Your task to perform on an android device: check battery use Image 0: 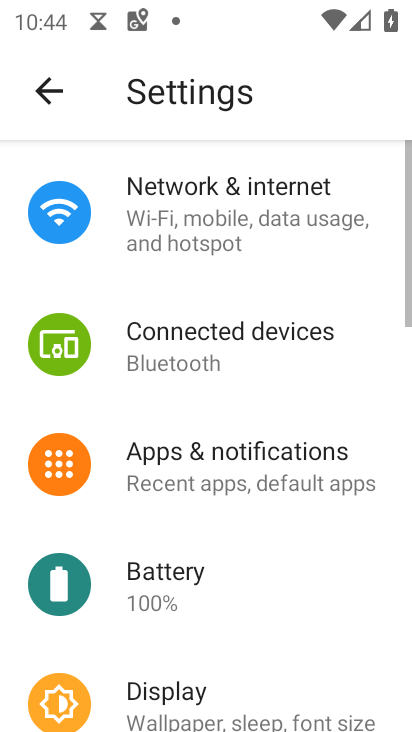
Step 0: press home button
Your task to perform on an android device: check battery use Image 1: 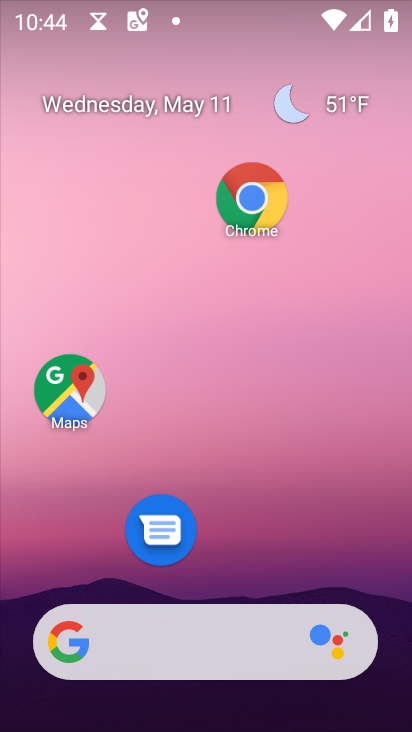
Step 1: drag from (273, 519) to (276, 212)
Your task to perform on an android device: check battery use Image 2: 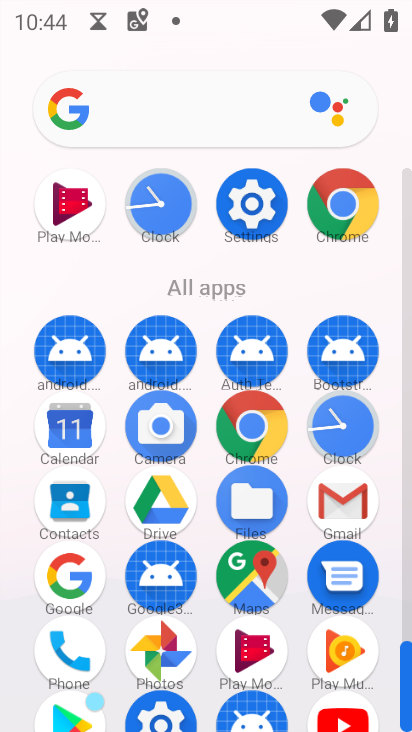
Step 2: click (248, 219)
Your task to perform on an android device: check battery use Image 3: 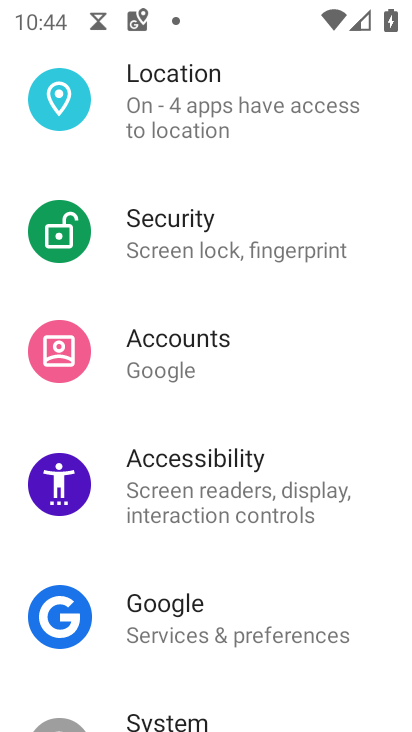
Step 3: drag from (274, 336) to (271, 602)
Your task to perform on an android device: check battery use Image 4: 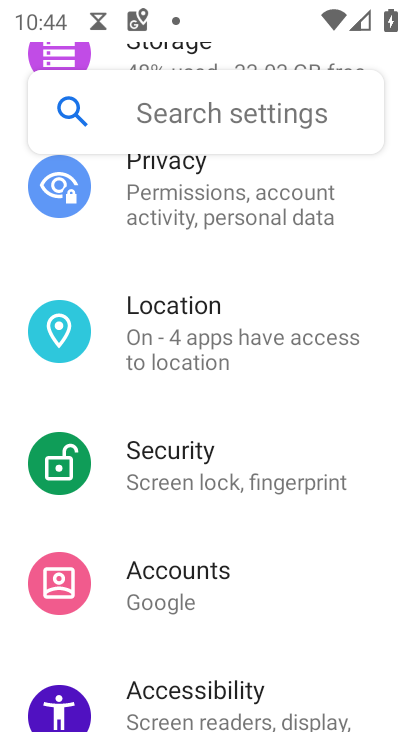
Step 4: drag from (317, 317) to (261, 688)
Your task to perform on an android device: check battery use Image 5: 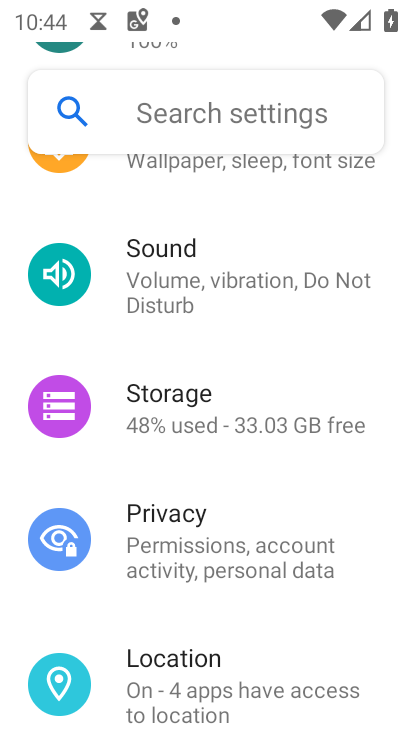
Step 5: drag from (237, 417) to (203, 729)
Your task to perform on an android device: check battery use Image 6: 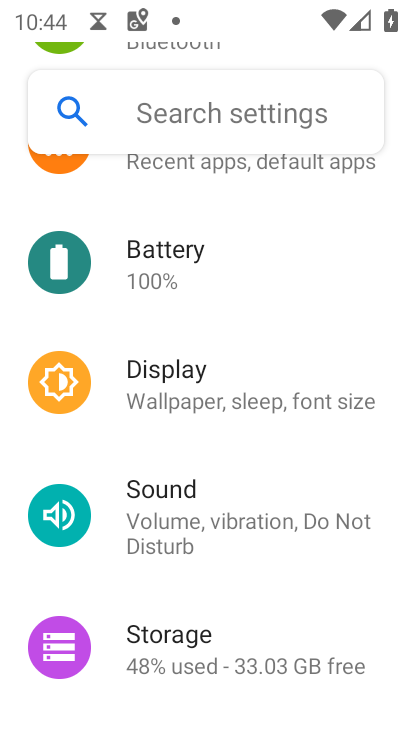
Step 6: click (165, 263)
Your task to perform on an android device: check battery use Image 7: 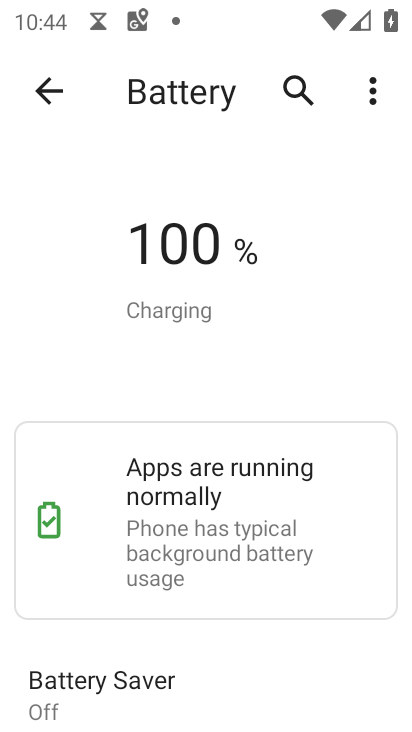
Step 7: task complete